Your task to perform on an android device: install app "Truecaller" Image 0: 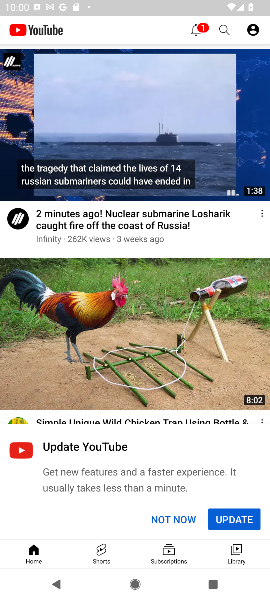
Step 0: press home button
Your task to perform on an android device: install app "Truecaller" Image 1: 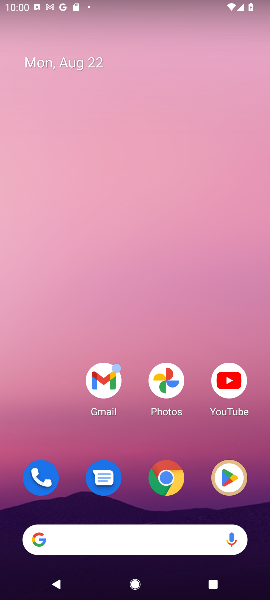
Step 1: click (229, 483)
Your task to perform on an android device: install app "Truecaller" Image 2: 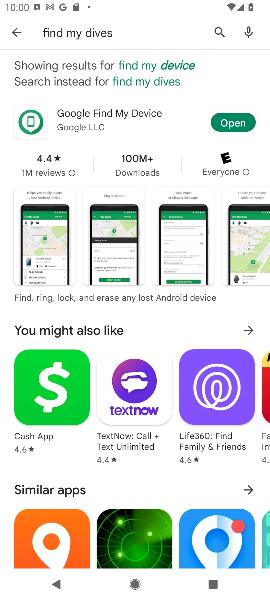
Step 2: click (222, 35)
Your task to perform on an android device: install app "Truecaller" Image 3: 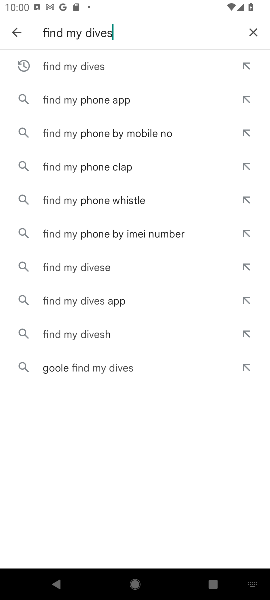
Step 3: click (250, 32)
Your task to perform on an android device: install app "Truecaller" Image 4: 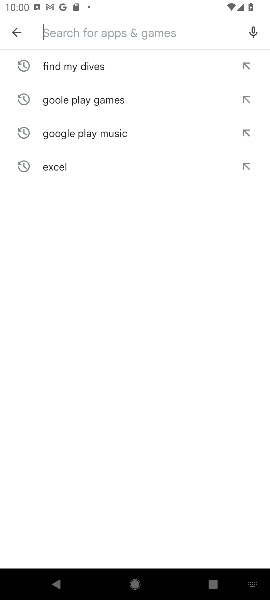
Step 4: type "true caller"
Your task to perform on an android device: install app "Truecaller" Image 5: 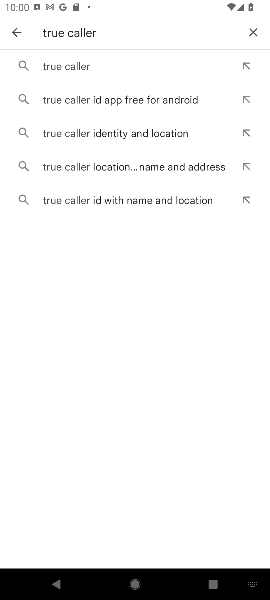
Step 5: click (63, 69)
Your task to perform on an android device: install app "Truecaller" Image 6: 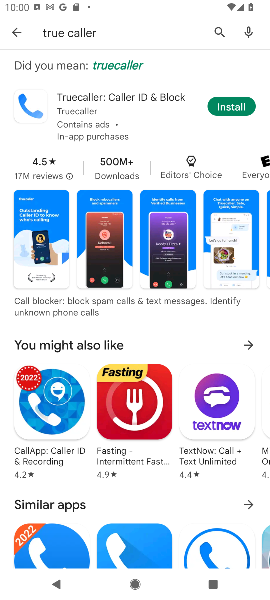
Step 6: click (244, 112)
Your task to perform on an android device: install app "Truecaller" Image 7: 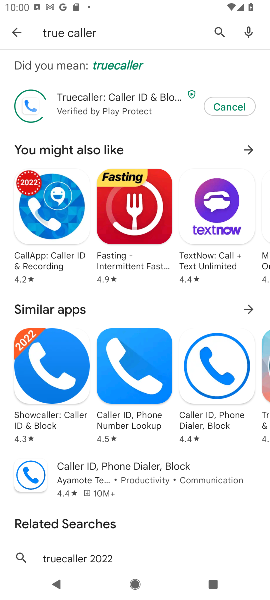
Step 7: task complete